Your task to perform on an android device: open wifi settings Image 0: 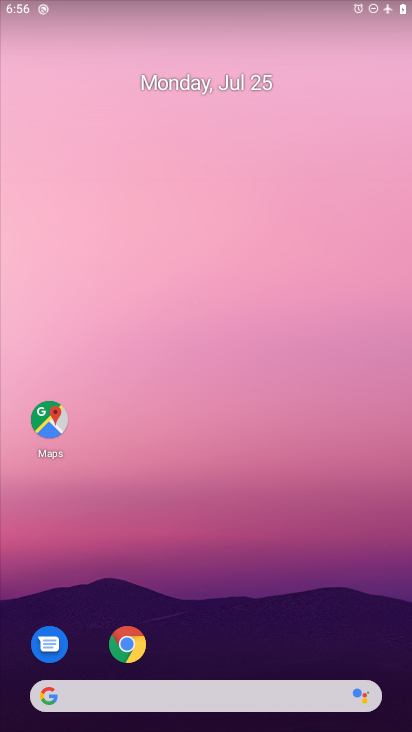
Step 0: drag from (231, 641) to (310, 118)
Your task to perform on an android device: open wifi settings Image 1: 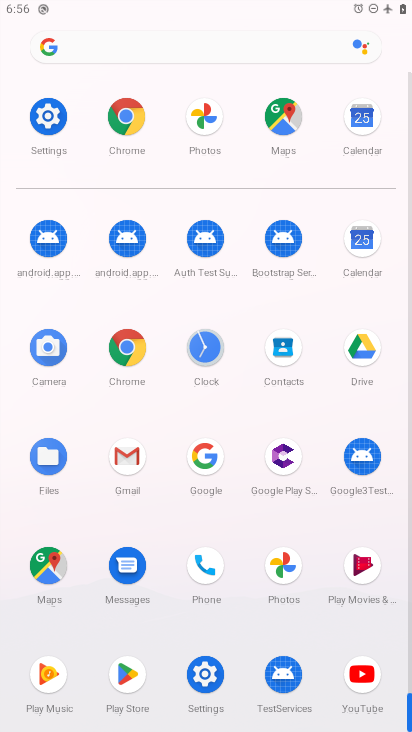
Step 1: click (55, 110)
Your task to perform on an android device: open wifi settings Image 2: 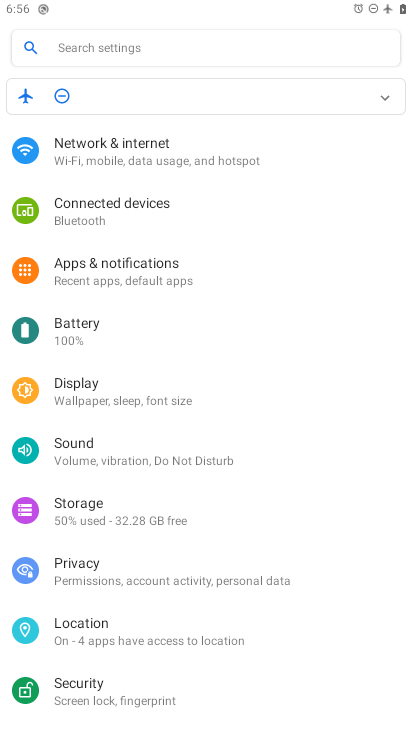
Step 2: click (121, 156)
Your task to perform on an android device: open wifi settings Image 3: 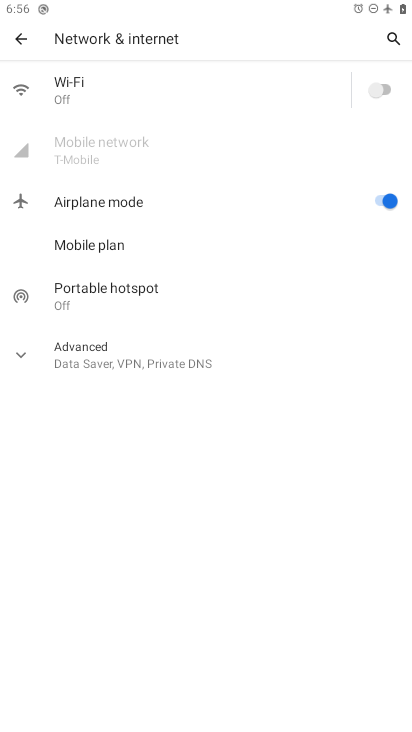
Step 3: click (72, 85)
Your task to perform on an android device: open wifi settings Image 4: 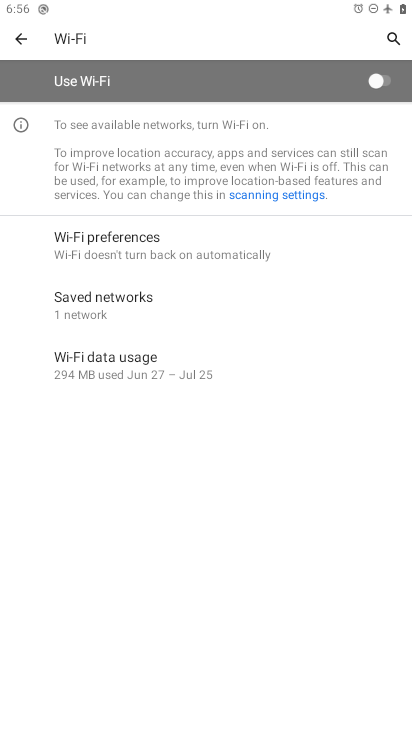
Step 4: click (383, 79)
Your task to perform on an android device: open wifi settings Image 5: 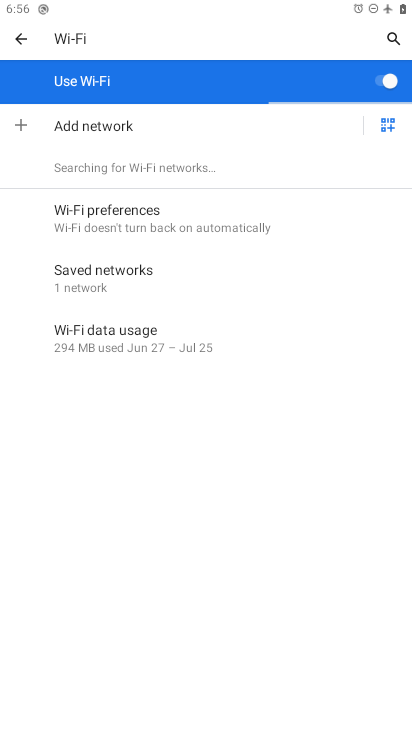
Step 5: task complete